Your task to perform on an android device: Open the map Image 0: 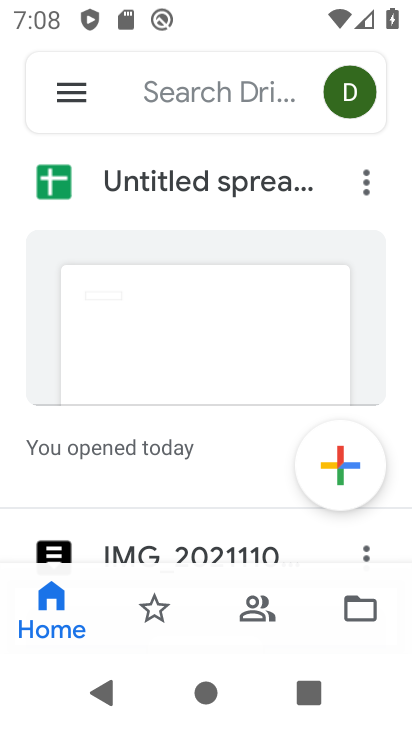
Step 0: press home button
Your task to perform on an android device: Open the map Image 1: 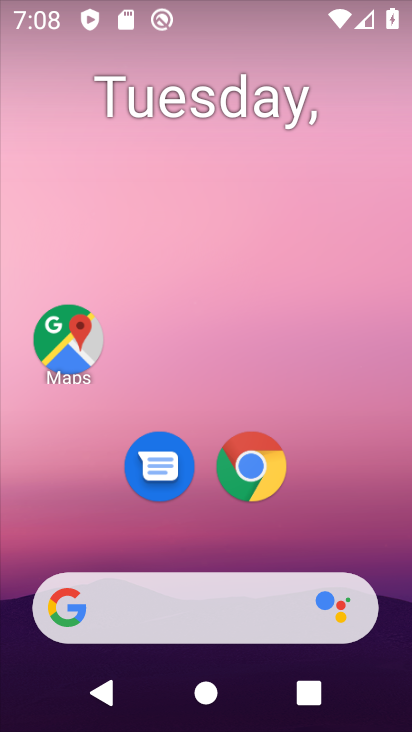
Step 1: click (73, 348)
Your task to perform on an android device: Open the map Image 2: 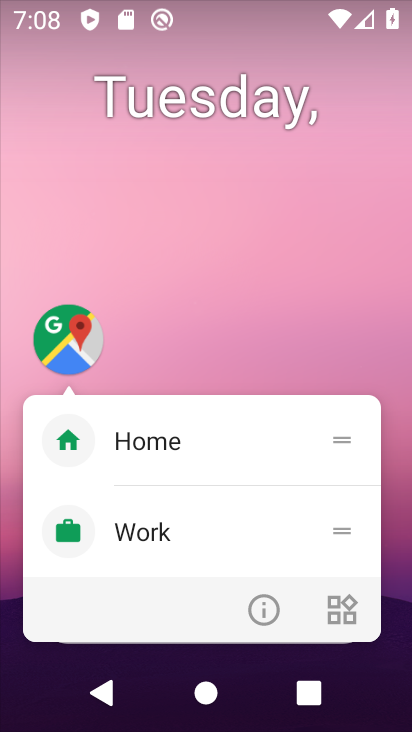
Step 2: click (79, 341)
Your task to perform on an android device: Open the map Image 3: 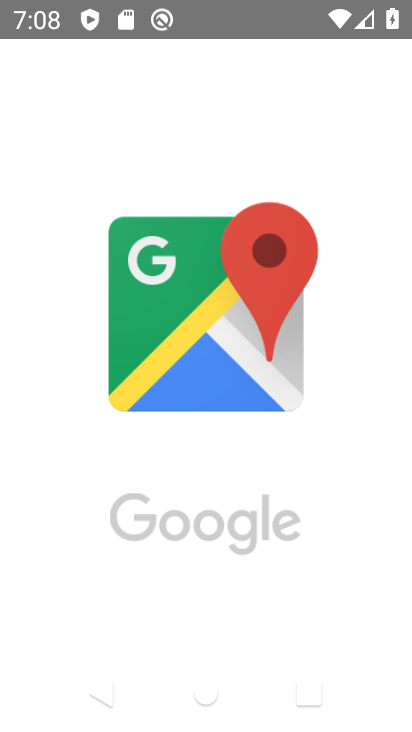
Step 3: click (60, 348)
Your task to perform on an android device: Open the map Image 4: 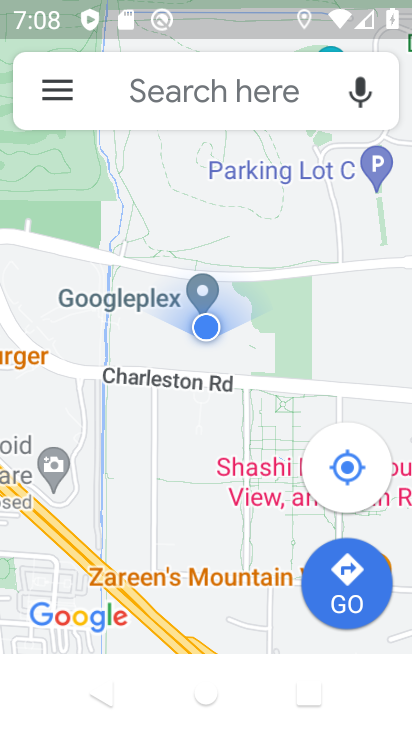
Step 4: task complete